Your task to perform on an android device: set an alarm Image 0: 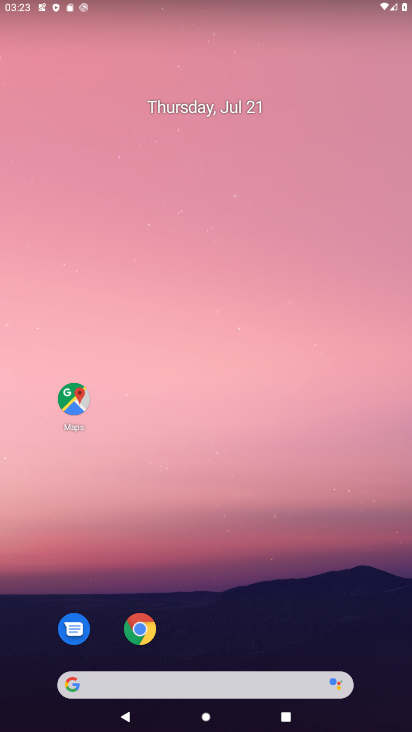
Step 0: drag from (276, 646) to (269, 10)
Your task to perform on an android device: set an alarm Image 1: 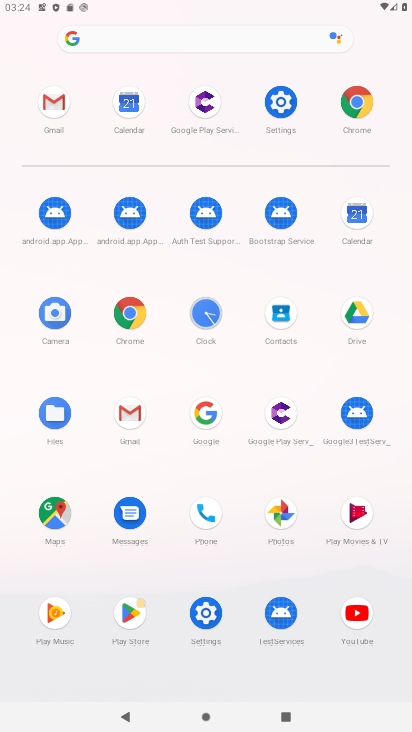
Step 1: click (208, 315)
Your task to perform on an android device: set an alarm Image 2: 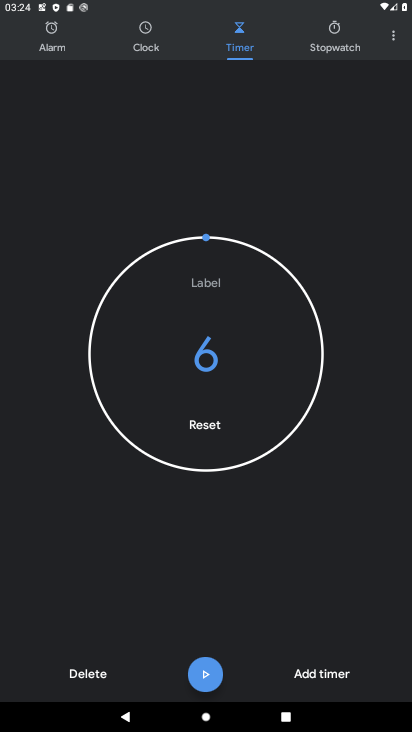
Step 2: click (41, 34)
Your task to perform on an android device: set an alarm Image 3: 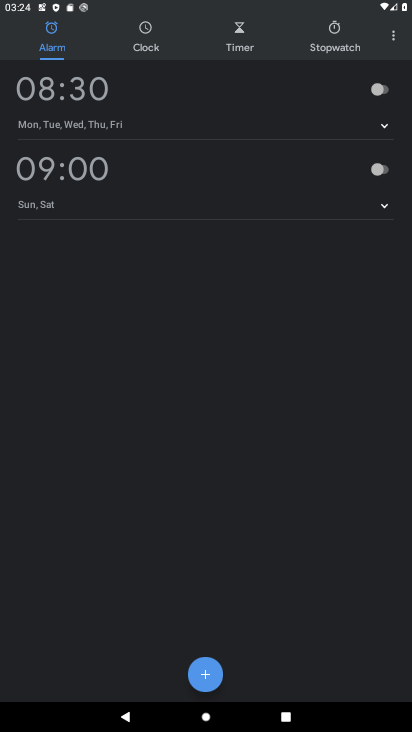
Step 3: click (209, 668)
Your task to perform on an android device: set an alarm Image 4: 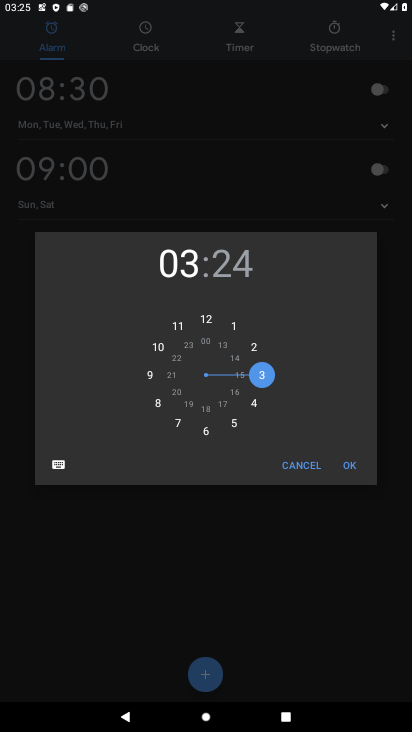
Step 4: click (347, 457)
Your task to perform on an android device: set an alarm Image 5: 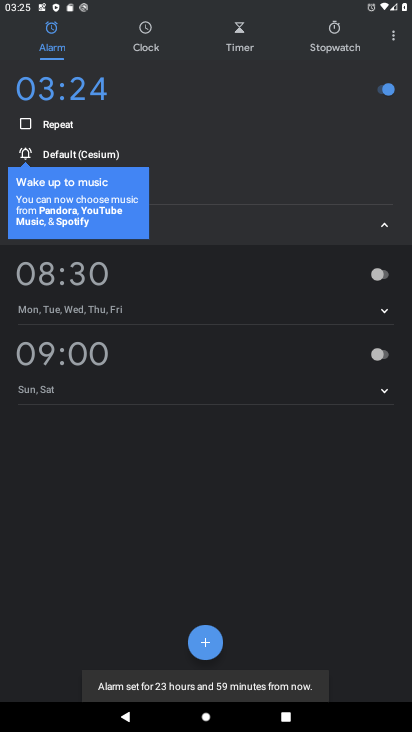
Step 5: task complete